Your task to perform on an android device: Go to eBay Image 0: 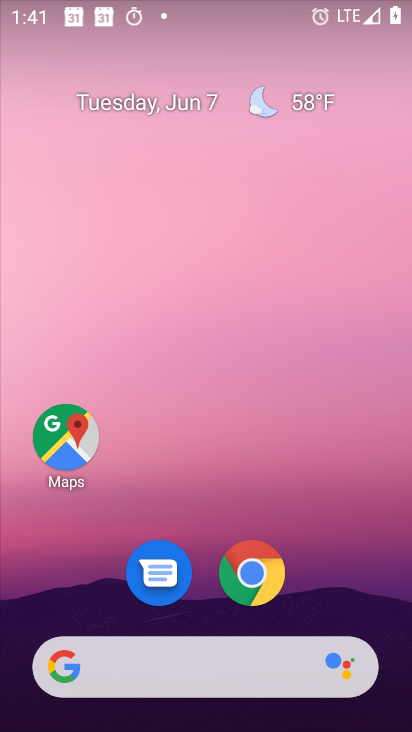
Step 0: click (247, 582)
Your task to perform on an android device: Go to eBay Image 1: 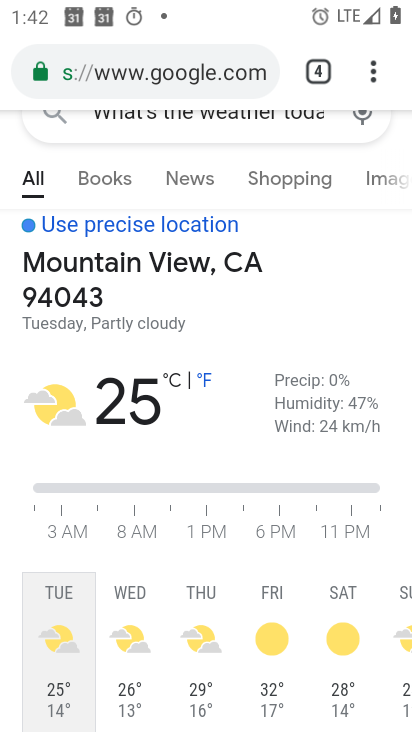
Step 1: click (252, 74)
Your task to perform on an android device: Go to eBay Image 2: 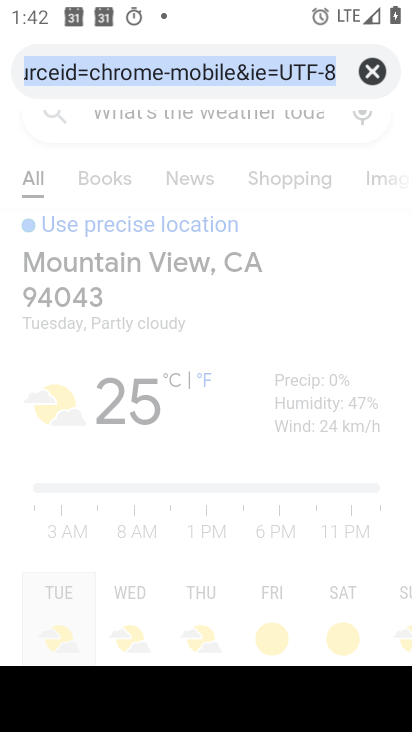
Step 2: click (366, 83)
Your task to perform on an android device: Go to eBay Image 3: 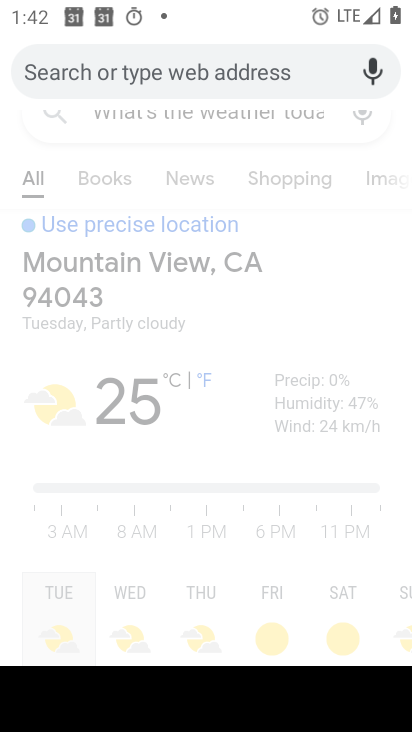
Step 3: type "eBay"
Your task to perform on an android device: Go to eBay Image 4: 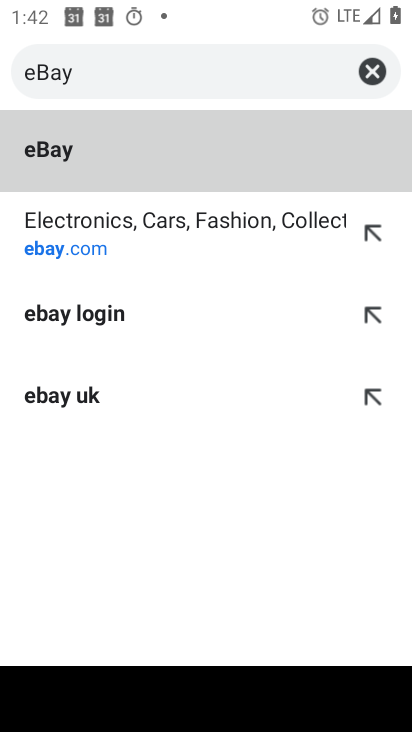
Step 4: click (106, 250)
Your task to perform on an android device: Go to eBay Image 5: 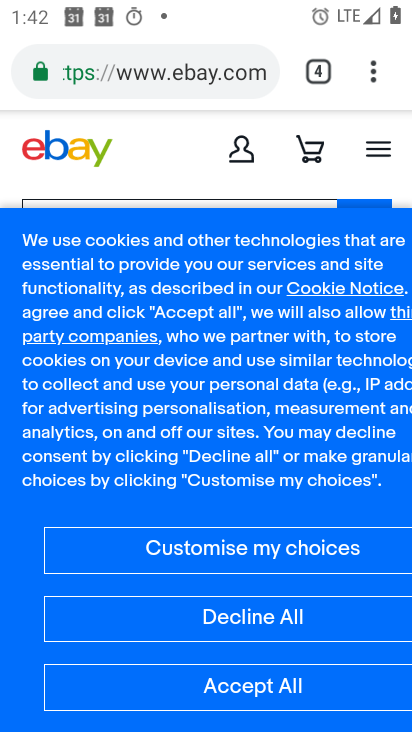
Step 5: task complete